Your task to perform on an android device: Open calendar and show me the fourth week of next month Image 0: 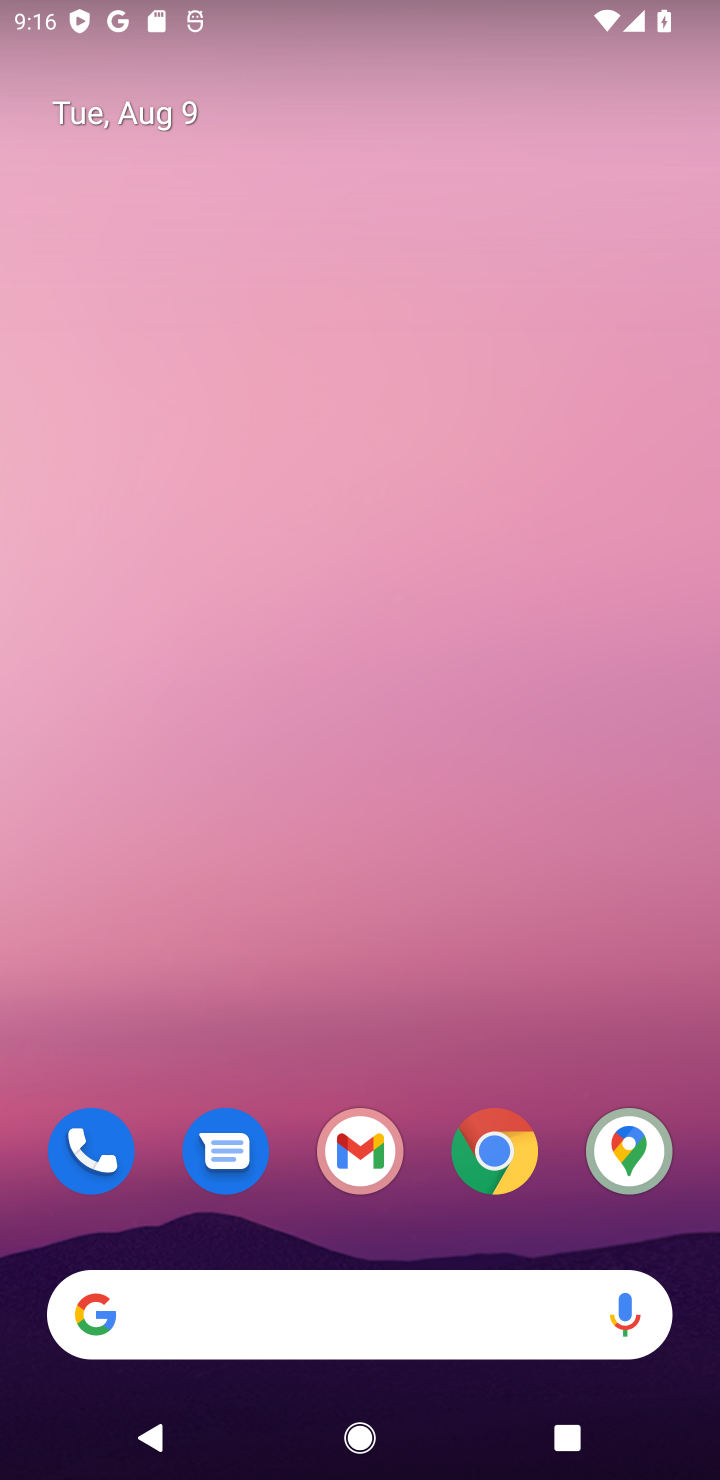
Step 0: drag from (438, 1207) to (453, 192)
Your task to perform on an android device: Open calendar and show me the fourth week of next month Image 1: 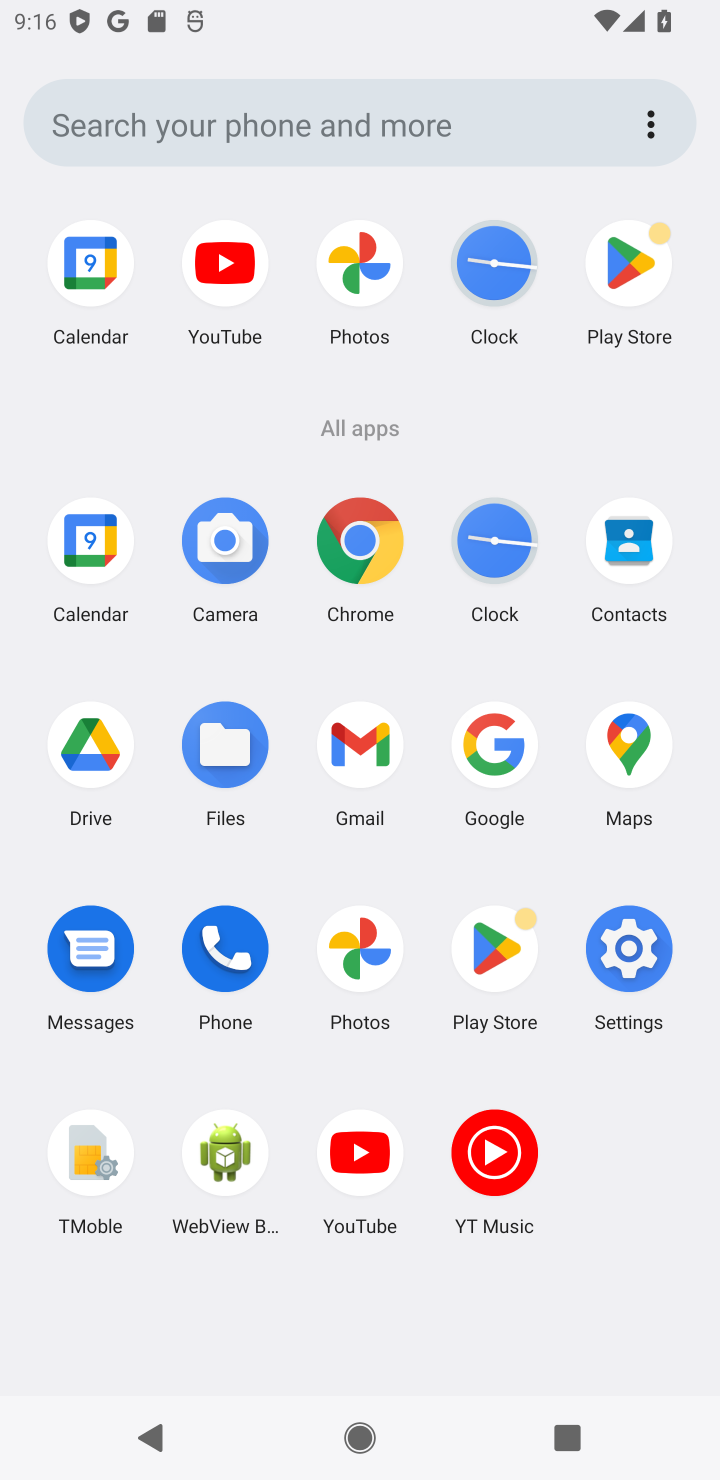
Step 1: click (69, 521)
Your task to perform on an android device: Open calendar and show me the fourth week of next month Image 2: 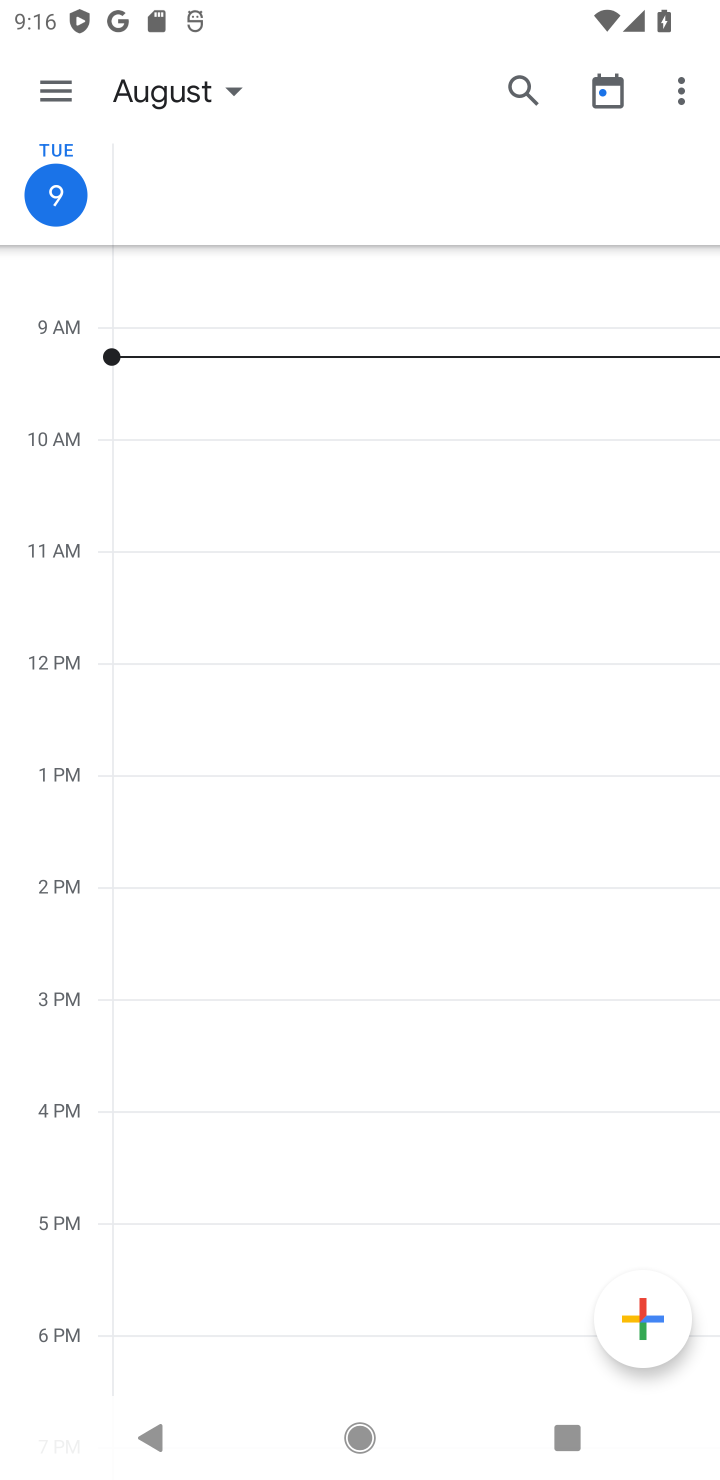
Step 2: click (175, 94)
Your task to perform on an android device: Open calendar and show me the fourth week of next month Image 3: 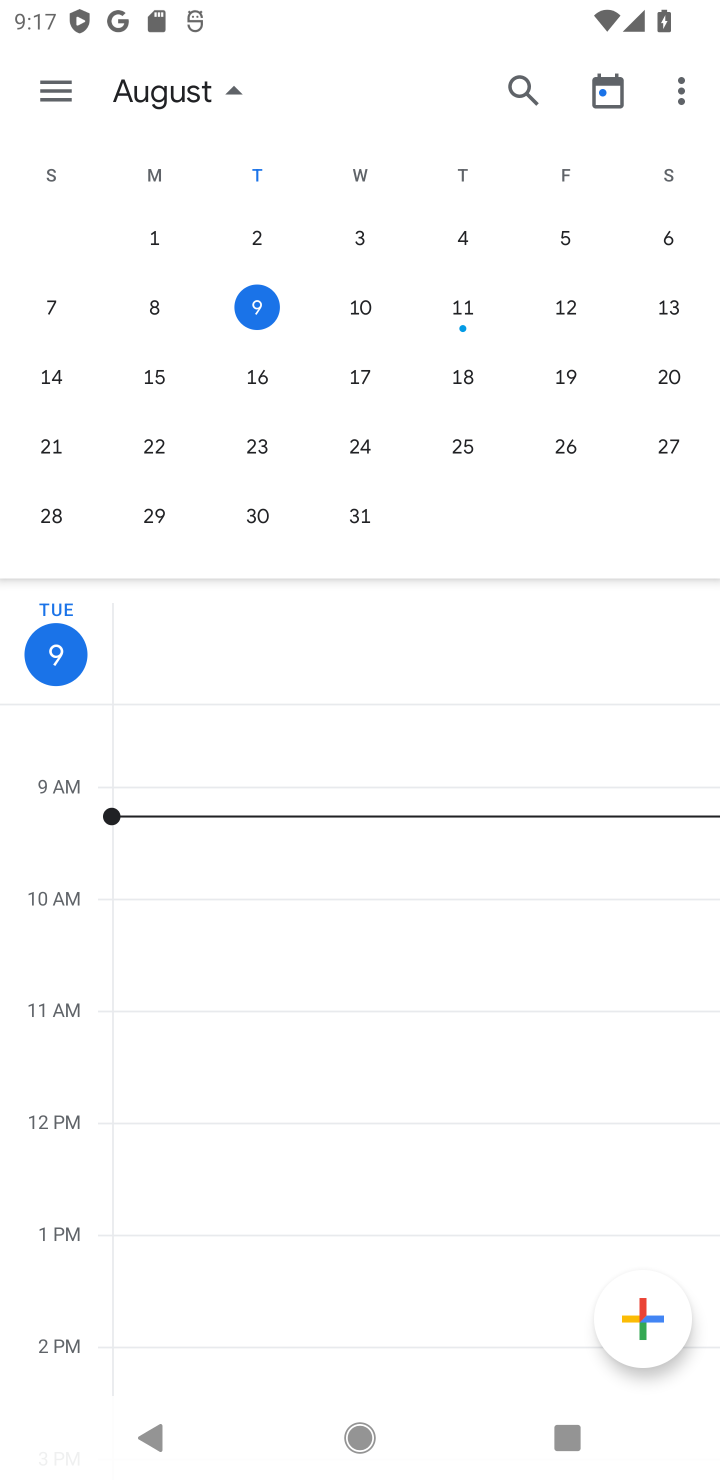
Step 3: drag from (635, 473) to (12, 37)
Your task to perform on an android device: Open calendar and show me the fourth week of next month Image 4: 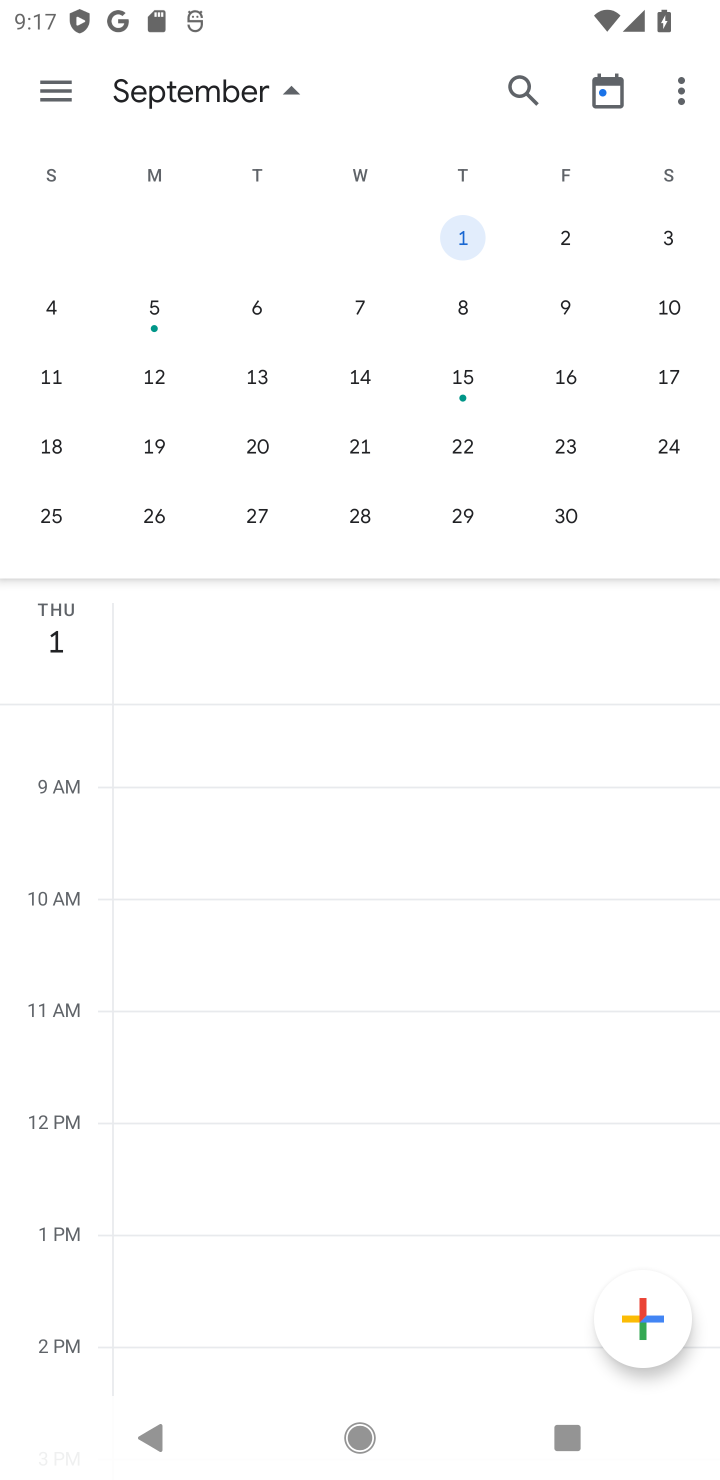
Step 4: click (53, 99)
Your task to perform on an android device: Open calendar and show me the fourth week of next month Image 5: 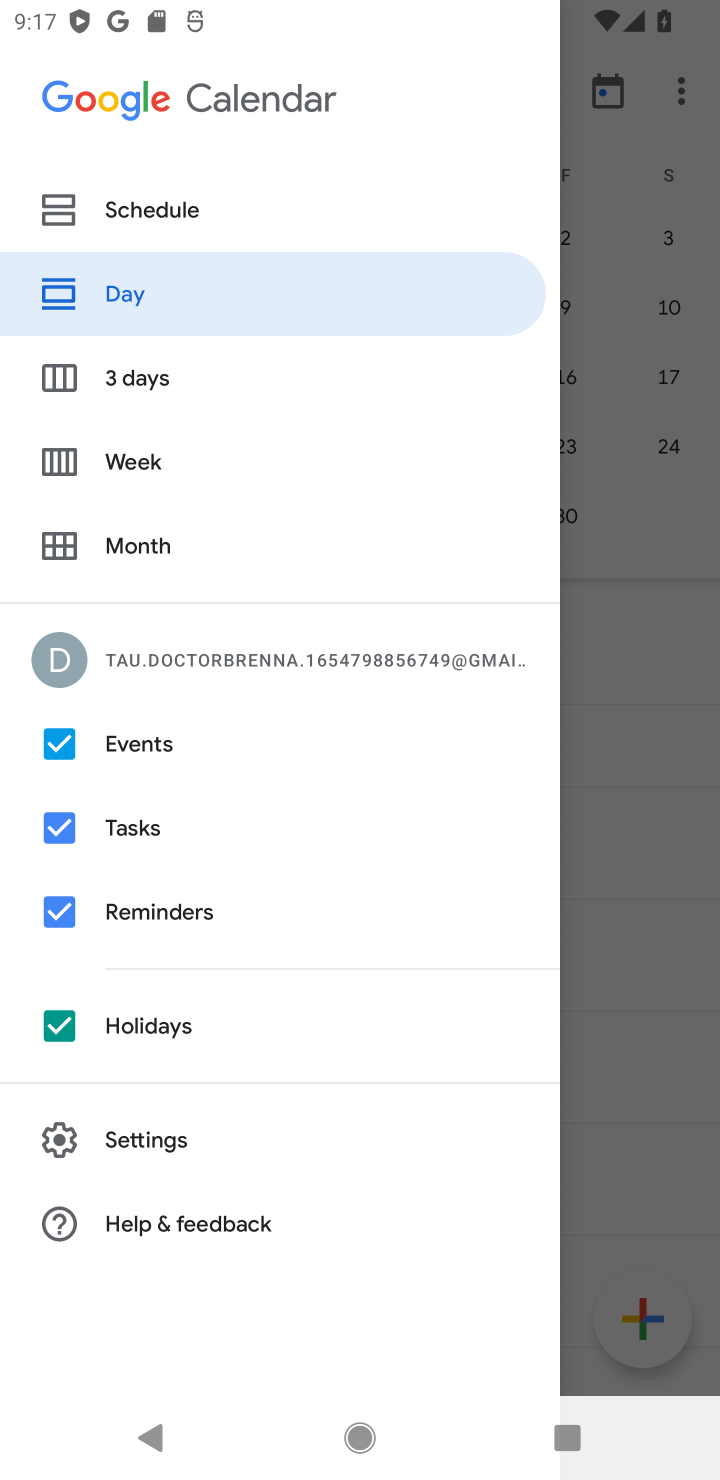
Step 5: click (114, 460)
Your task to perform on an android device: Open calendar and show me the fourth week of next month Image 6: 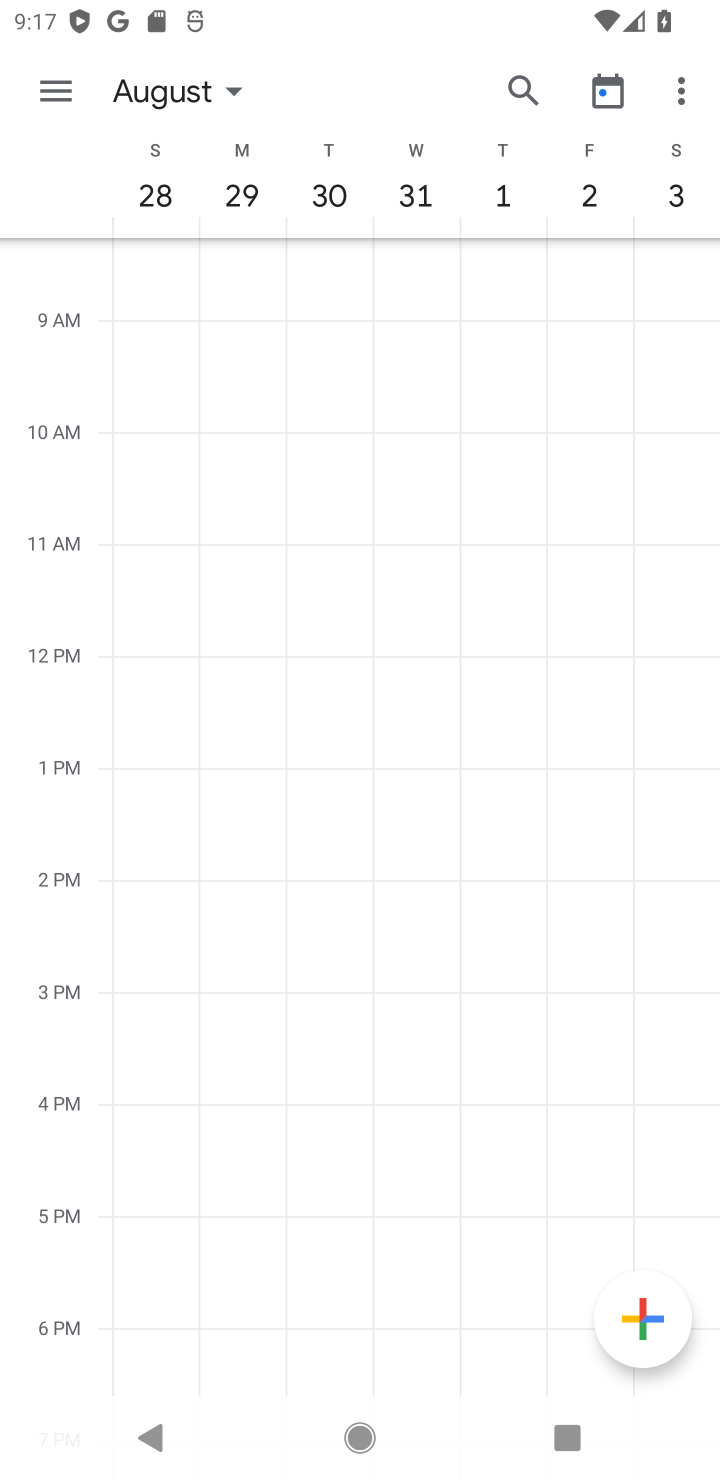
Step 6: task complete